Your task to perform on an android device: Open the calendar app, open the side menu, and click the "Day" option Image 0: 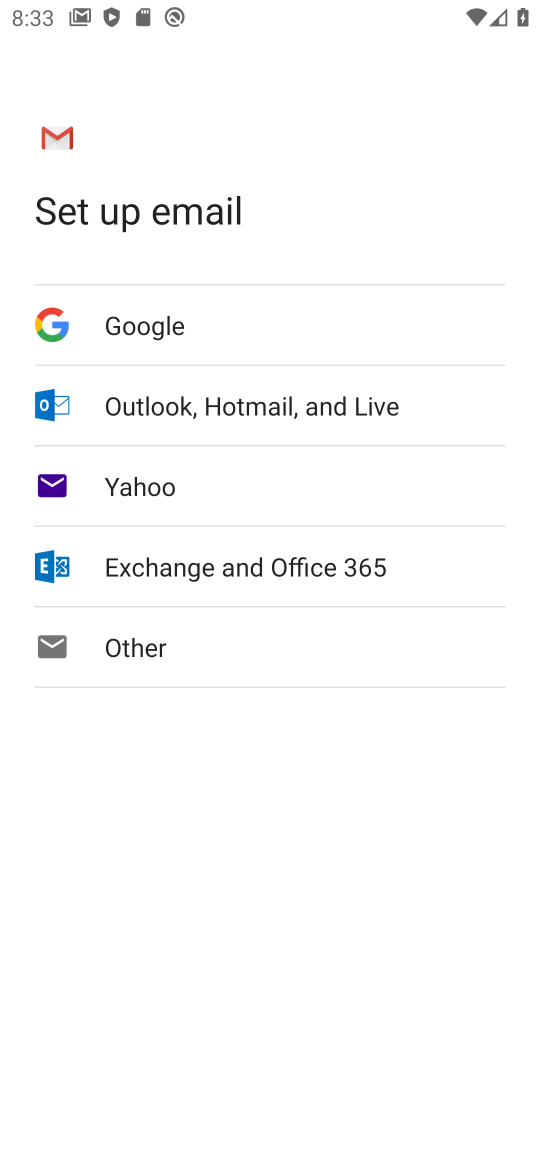
Step 0: press home button
Your task to perform on an android device: Open the calendar app, open the side menu, and click the "Day" option Image 1: 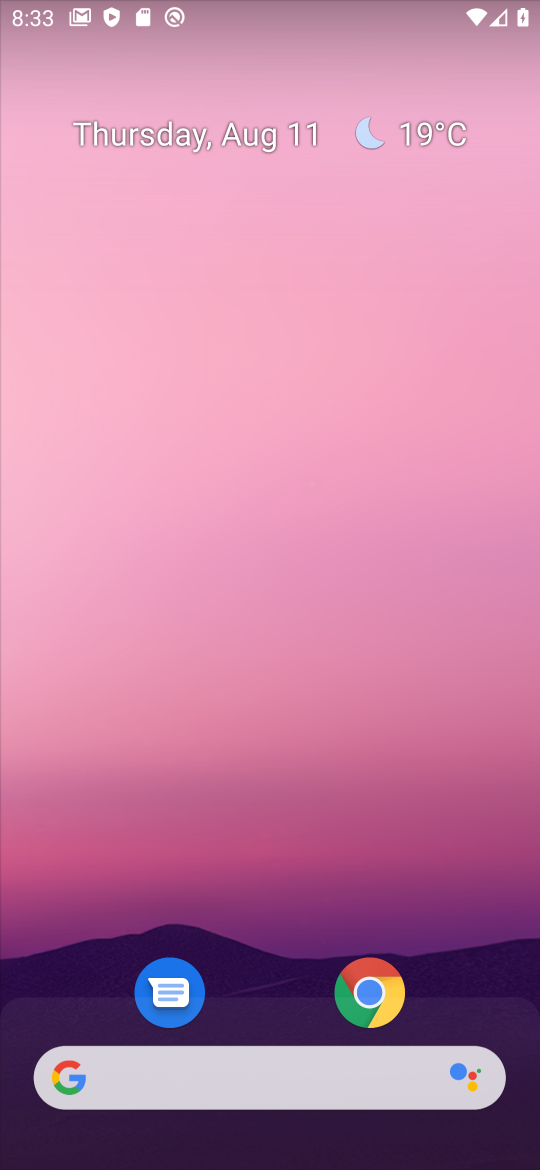
Step 1: drag from (280, 975) to (274, 117)
Your task to perform on an android device: Open the calendar app, open the side menu, and click the "Day" option Image 2: 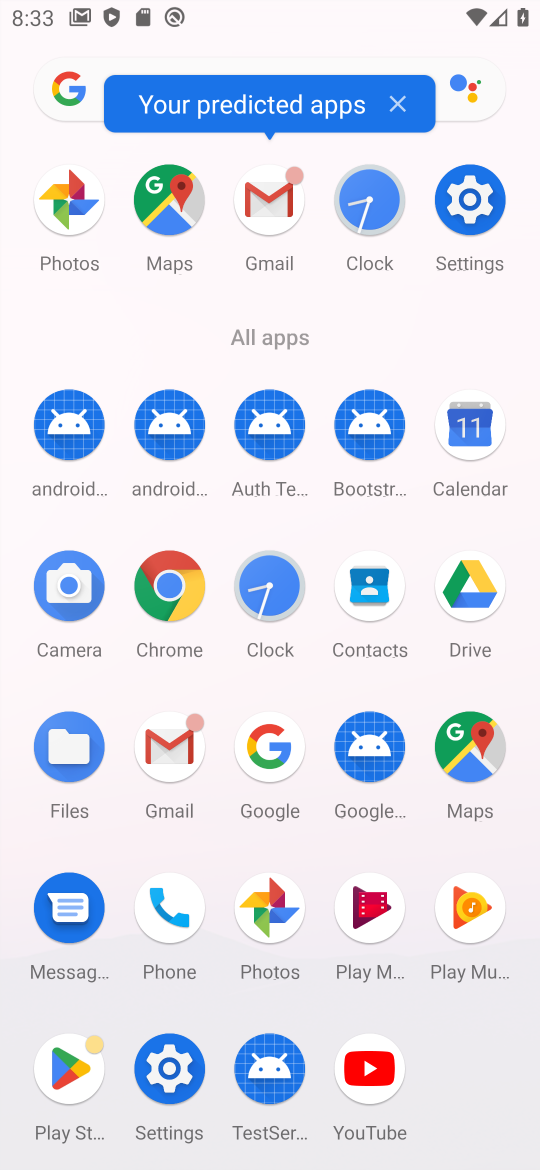
Step 2: click (469, 445)
Your task to perform on an android device: Open the calendar app, open the side menu, and click the "Day" option Image 3: 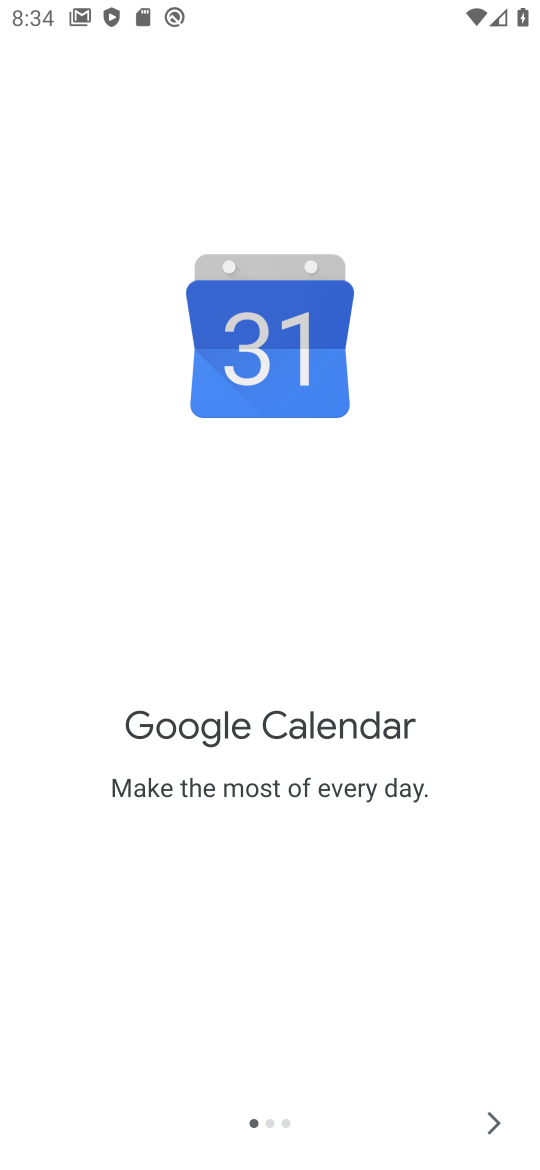
Step 3: click (497, 1123)
Your task to perform on an android device: Open the calendar app, open the side menu, and click the "Day" option Image 4: 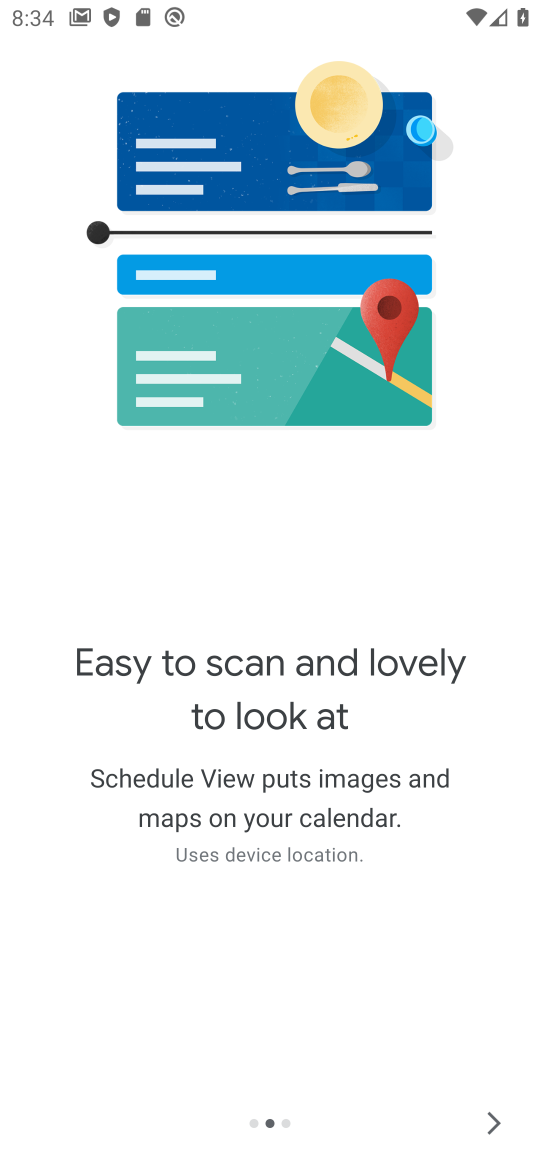
Step 4: click (497, 1123)
Your task to perform on an android device: Open the calendar app, open the side menu, and click the "Day" option Image 5: 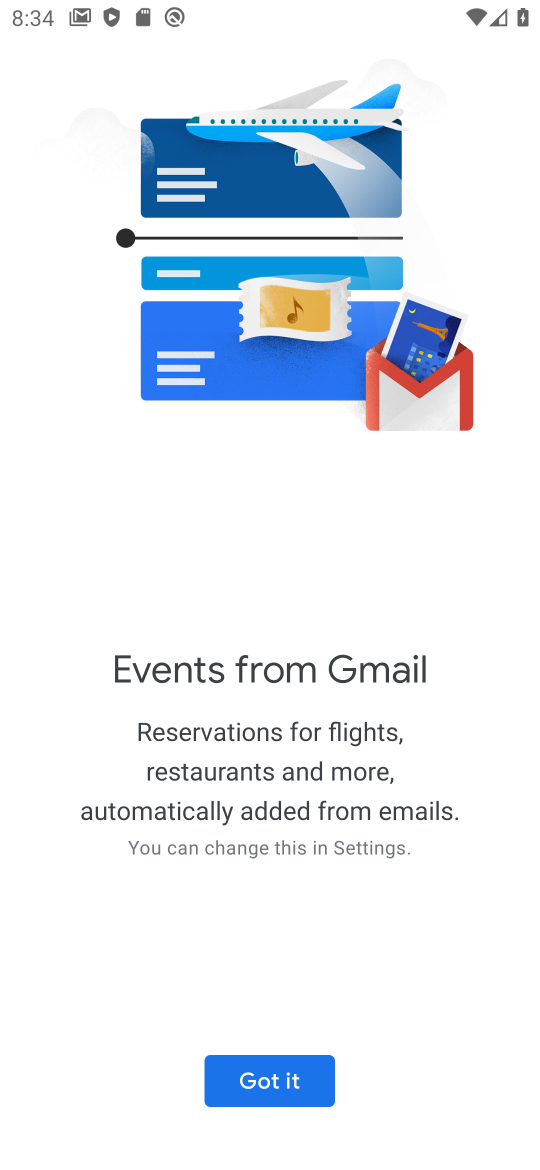
Step 5: click (240, 1092)
Your task to perform on an android device: Open the calendar app, open the side menu, and click the "Day" option Image 6: 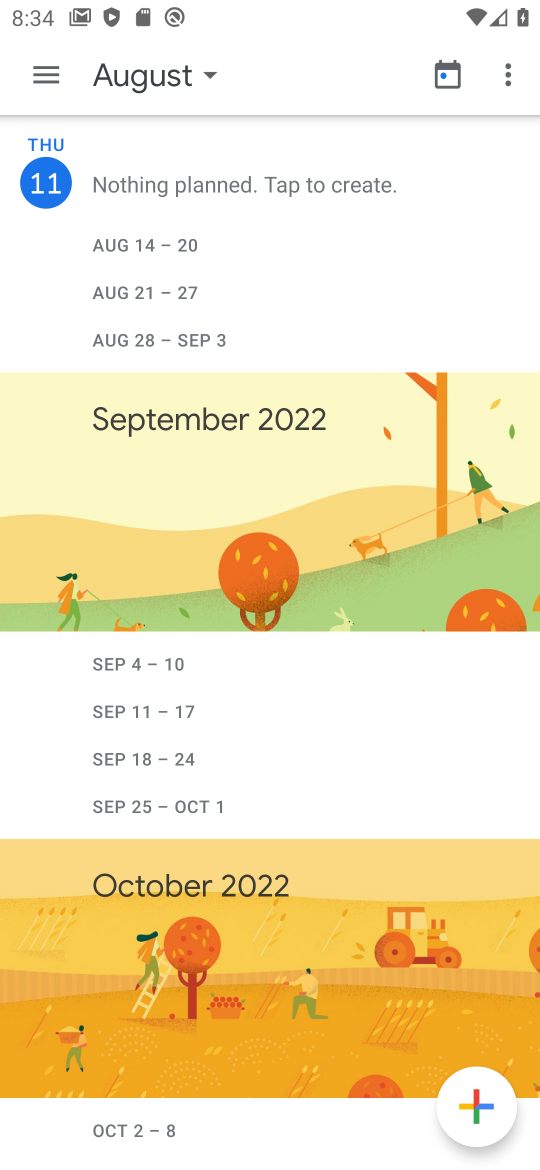
Step 6: click (22, 72)
Your task to perform on an android device: Open the calendar app, open the side menu, and click the "Day" option Image 7: 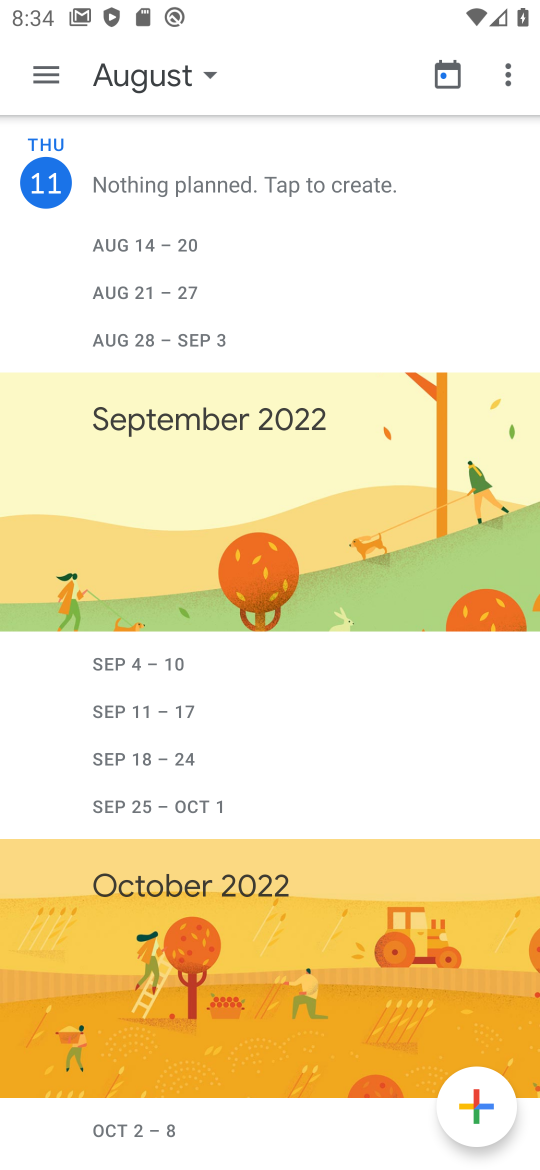
Step 7: click (42, 70)
Your task to perform on an android device: Open the calendar app, open the side menu, and click the "Day" option Image 8: 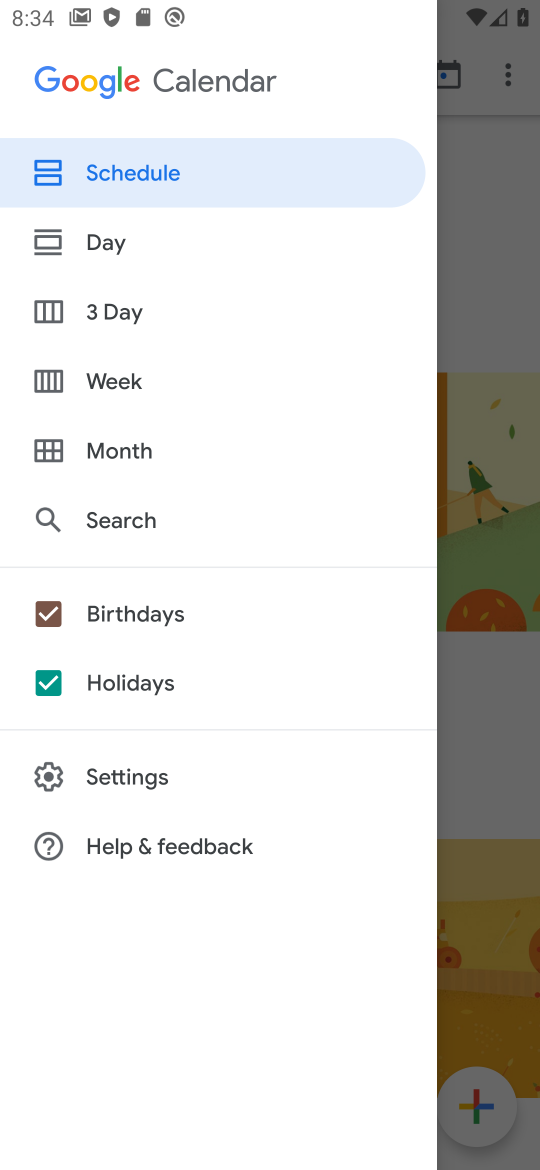
Step 8: click (111, 230)
Your task to perform on an android device: Open the calendar app, open the side menu, and click the "Day" option Image 9: 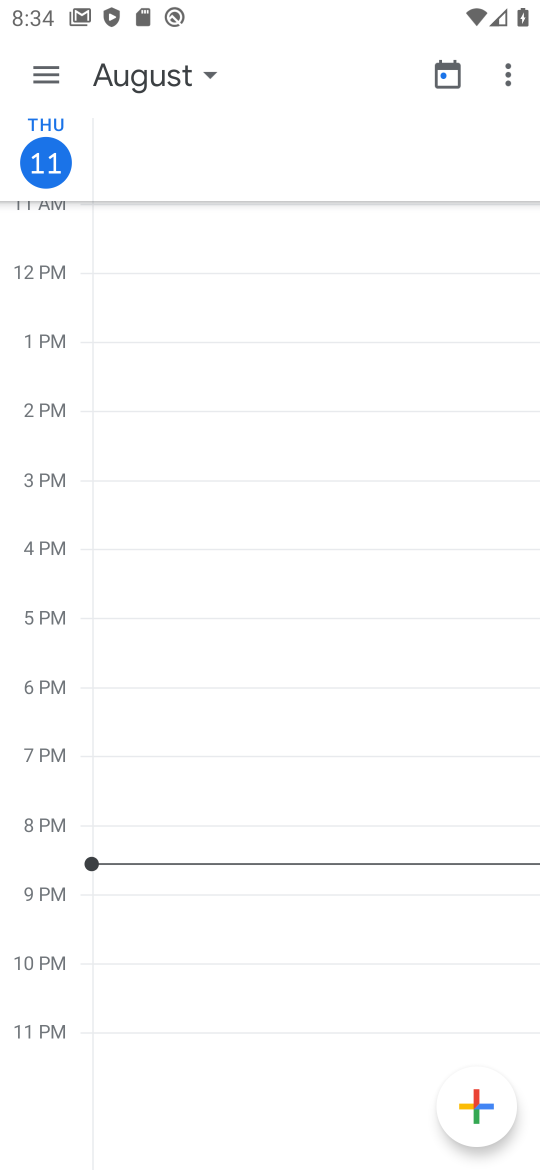
Step 9: task complete